Your task to perform on an android device: visit the assistant section in the google photos Image 0: 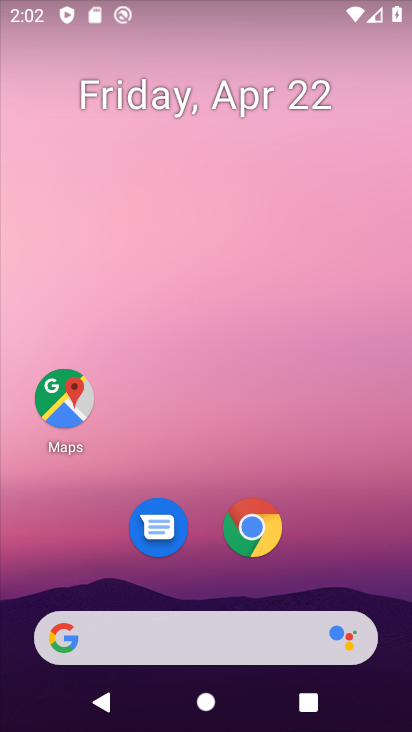
Step 0: drag from (365, 590) to (354, 242)
Your task to perform on an android device: visit the assistant section in the google photos Image 1: 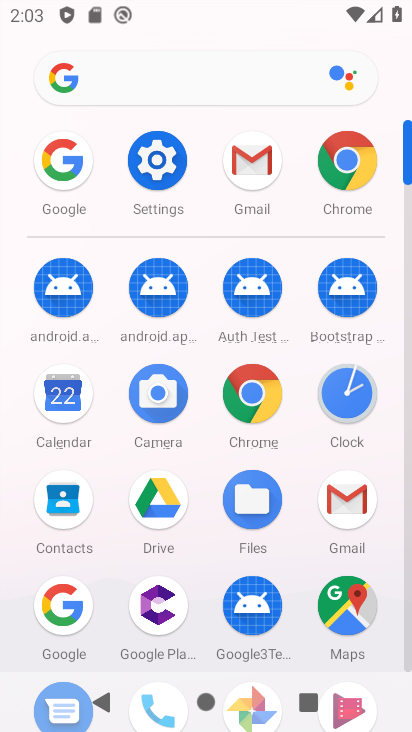
Step 1: click (408, 672)
Your task to perform on an android device: visit the assistant section in the google photos Image 2: 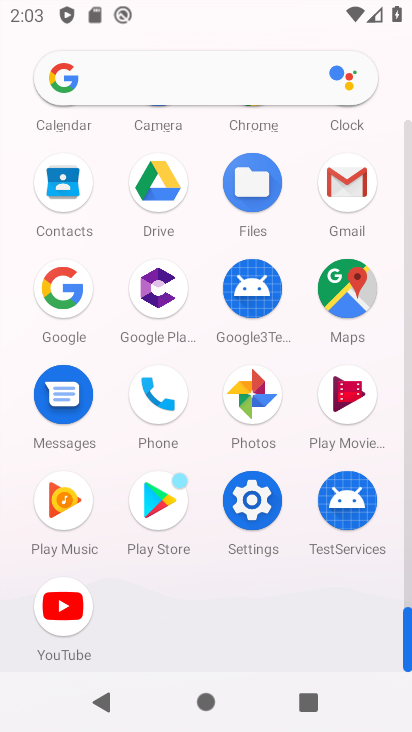
Step 2: click (233, 405)
Your task to perform on an android device: visit the assistant section in the google photos Image 3: 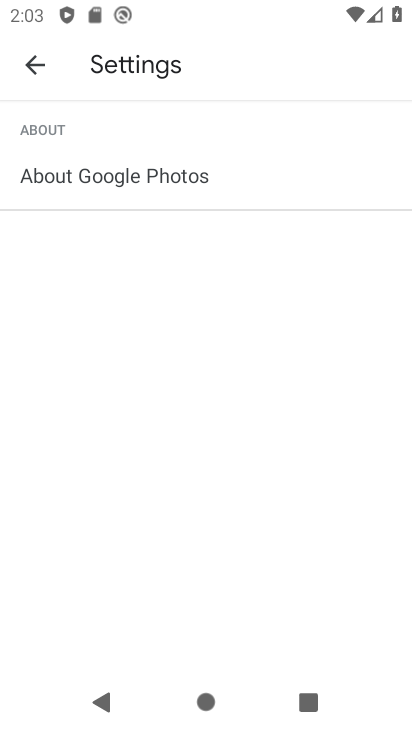
Step 3: press back button
Your task to perform on an android device: visit the assistant section in the google photos Image 4: 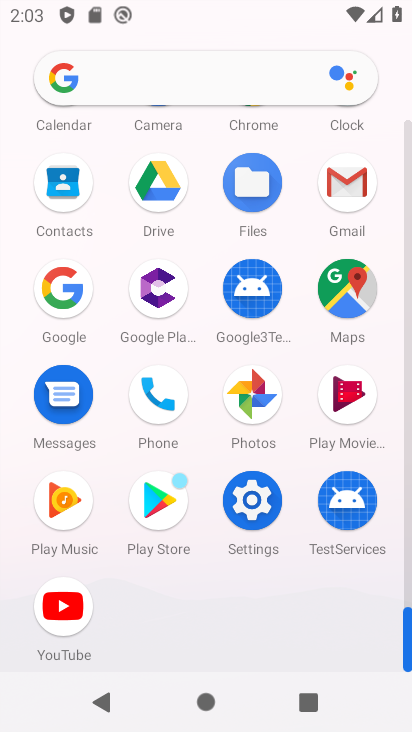
Step 4: click (235, 384)
Your task to perform on an android device: visit the assistant section in the google photos Image 5: 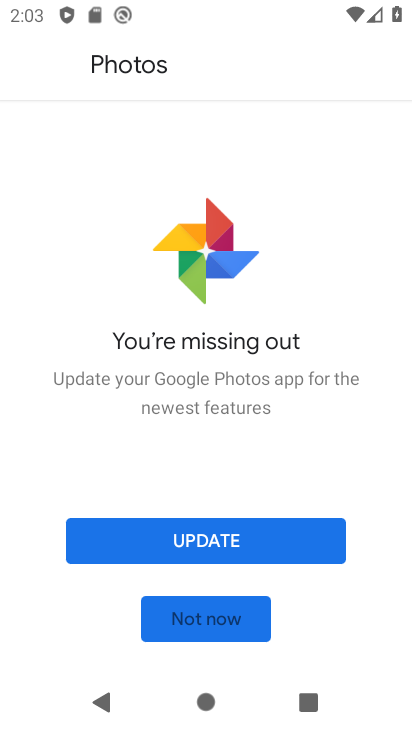
Step 5: click (237, 610)
Your task to perform on an android device: visit the assistant section in the google photos Image 6: 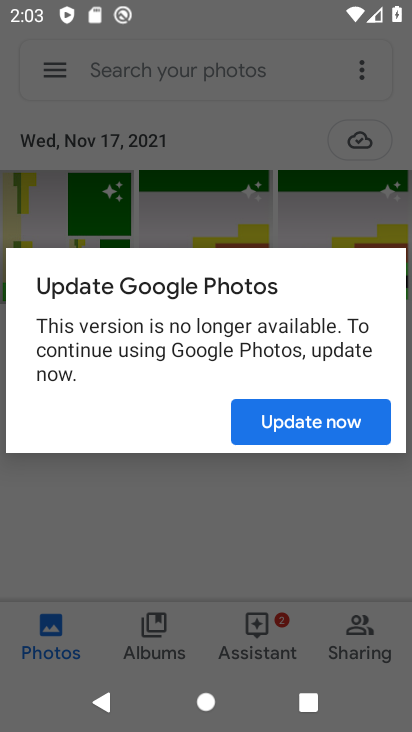
Step 6: click (176, 470)
Your task to perform on an android device: visit the assistant section in the google photos Image 7: 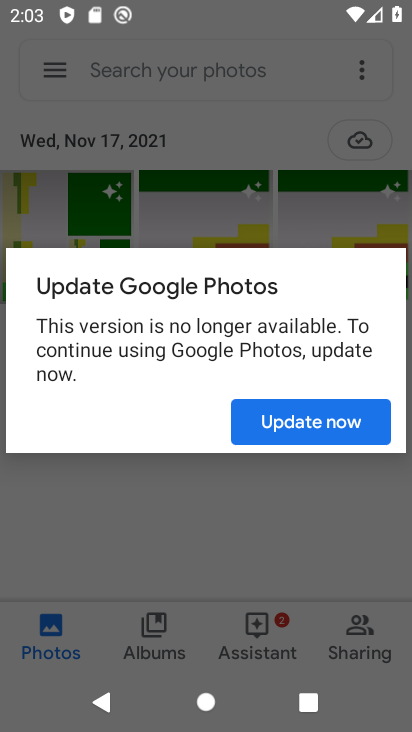
Step 7: click (219, 173)
Your task to perform on an android device: visit the assistant section in the google photos Image 8: 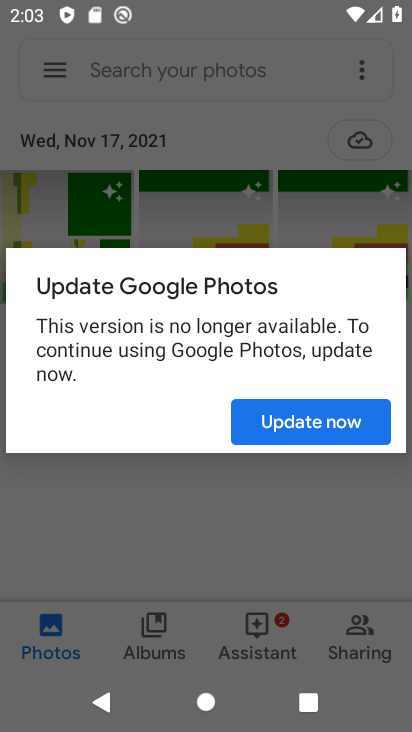
Step 8: click (252, 643)
Your task to perform on an android device: visit the assistant section in the google photos Image 9: 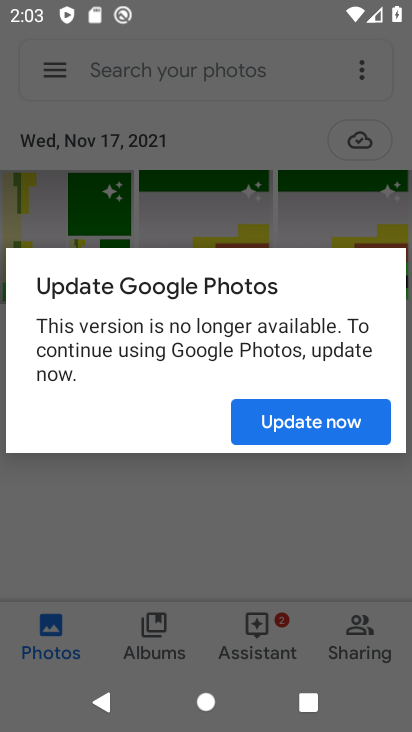
Step 9: click (296, 429)
Your task to perform on an android device: visit the assistant section in the google photos Image 10: 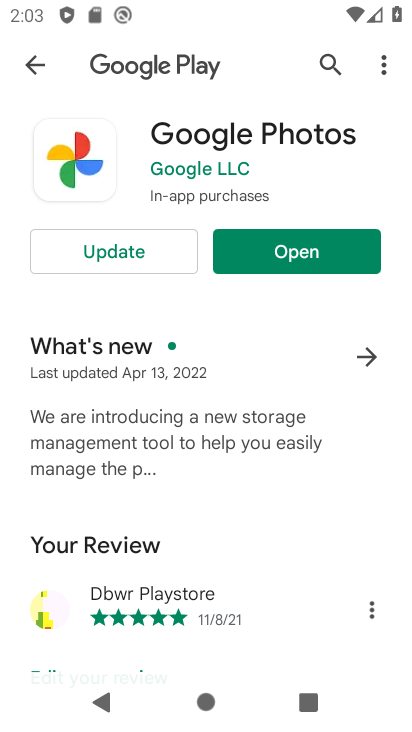
Step 10: click (166, 260)
Your task to perform on an android device: visit the assistant section in the google photos Image 11: 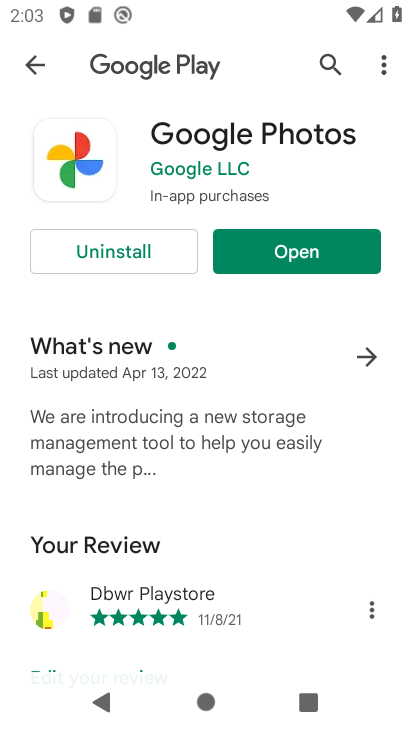
Step 11: click (292, 264)
Your task to perform on an android device: visit the assistant section in the google photos Image 12: 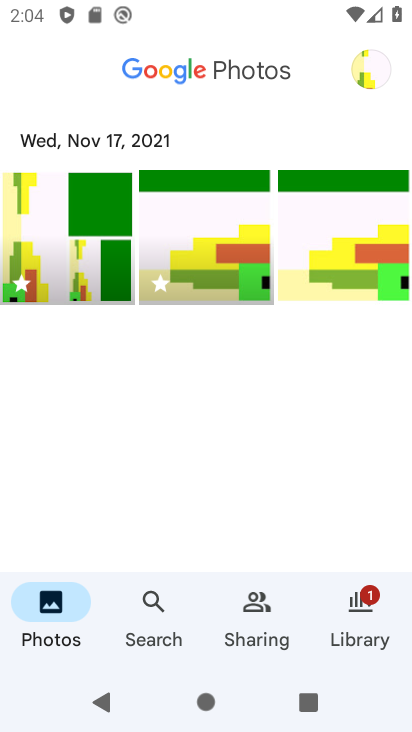
Step 12: task complete